Your task to perform on an android device: Open calendar and show me the second week of next month Image 0: 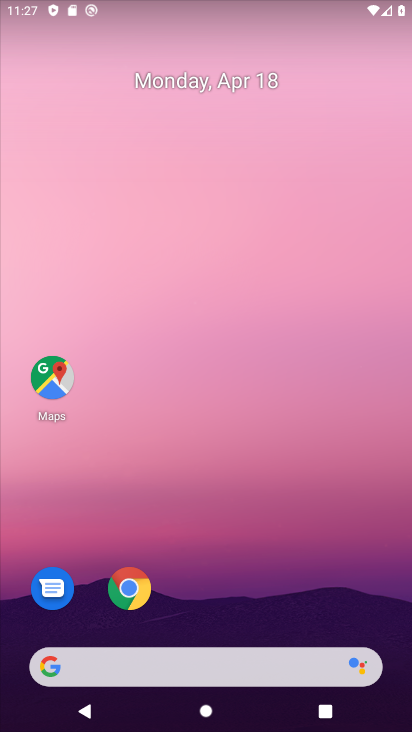
Step 0: drag from (294, 517) to (278, 21)
Your task to perform on an android device: Open calendar and show me the second week of next month Image 1: 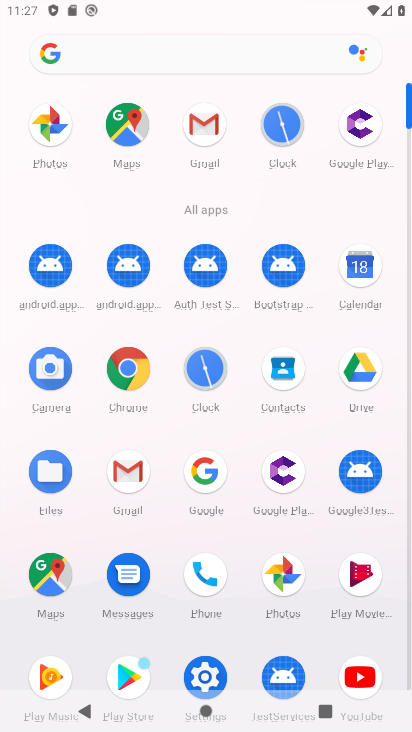
Step 1: drag from (3, 516) to (0, 201)
Your task to perform on an android device: Open calendar and show me the second week of next month Image 2: 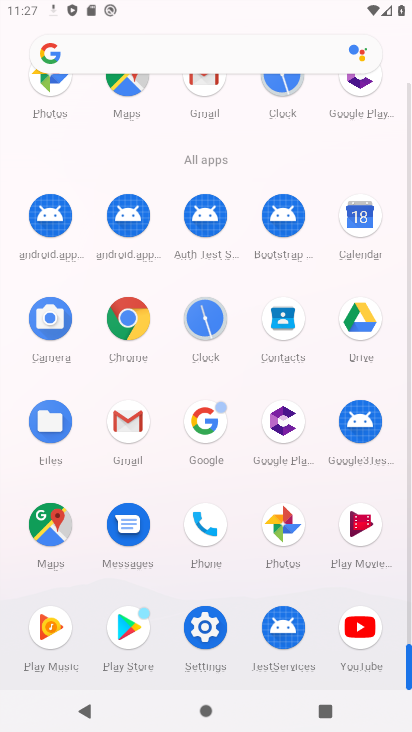
Step 2: drag from (18, 165) to (6, 369)
Your task to perform on an android device: Open calendar and show me the second week of next month Image 3: 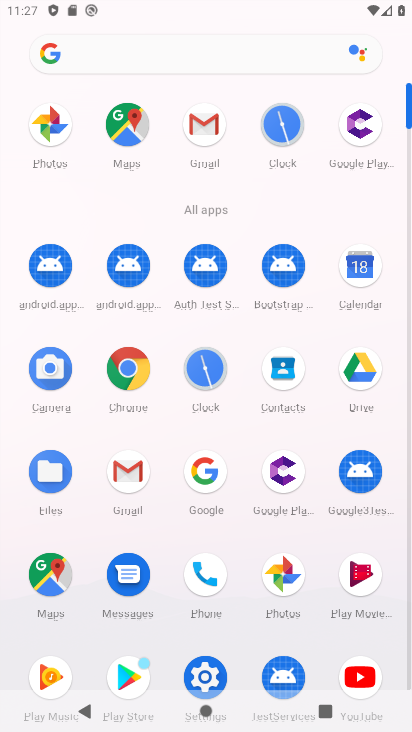
Step 3: click (354, 264)
Your task to perform on an android device: Open calendar and show me the second week of next month Image 4: 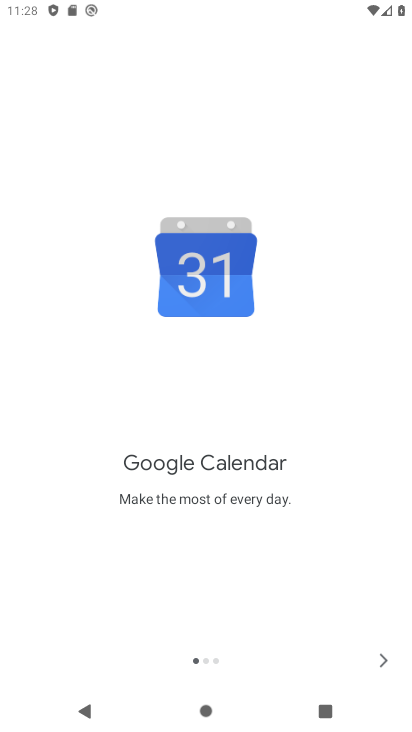
Step 4: click (379, 662)
Your task to perform on an android device: Open calendar and show me the second week of next month Image 5: 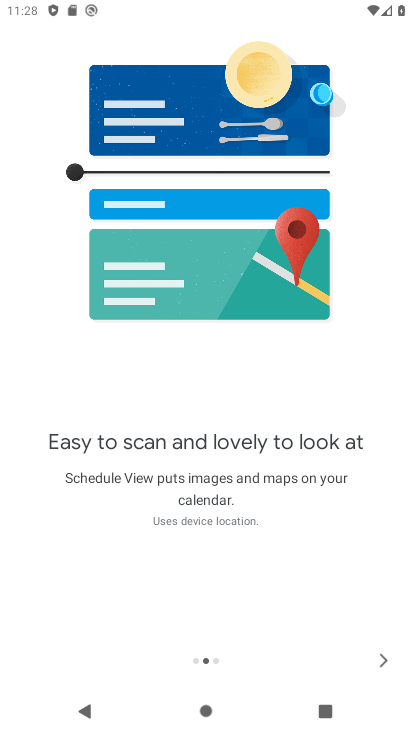
Step 5: click (379, 662)
Your task to perform on an android device: Open calendar and show me the second week of next month Image 6: 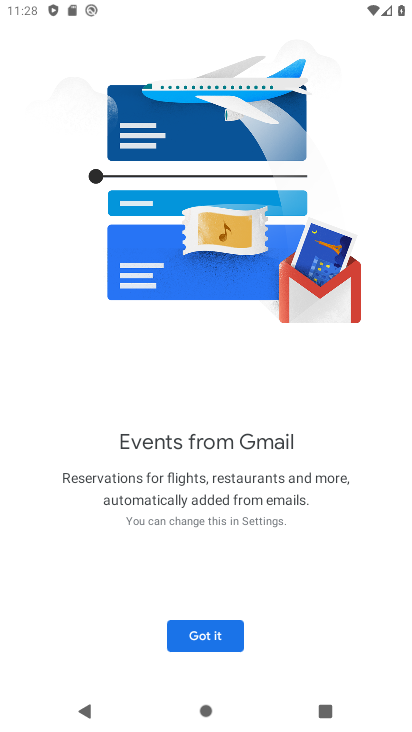
Step 6: click (218, 630)
Your task to perform on an android device: Open calendar and show me the second week of next month Image 7: 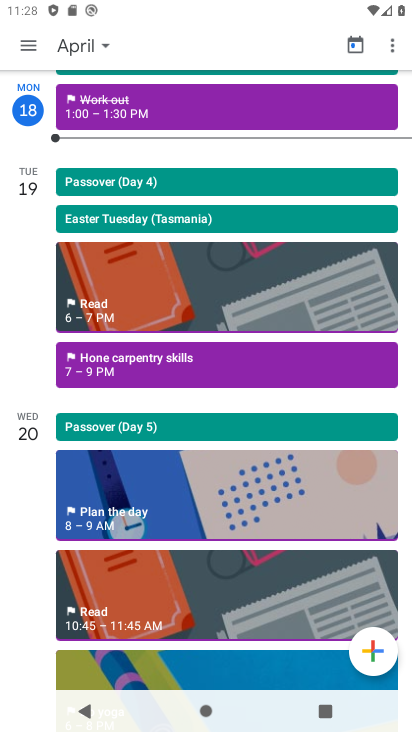
Step 7: click (77, 57)
Your task to perform on an android device: Open calendar and show me the second week of next month Image 8: 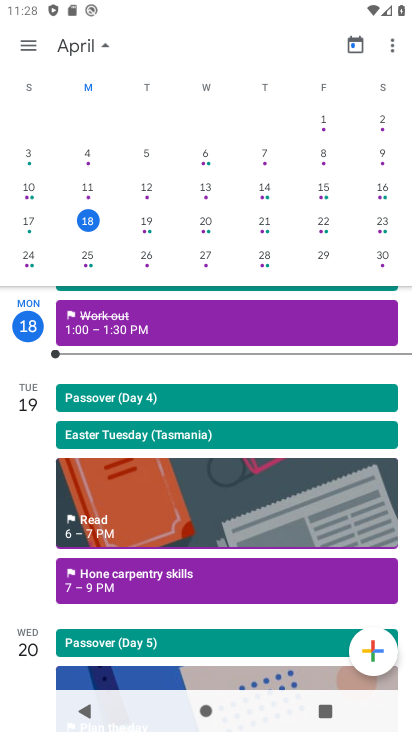
Step 8: drag from (359, 193) to (0, 143)
Your task to perform on an android device: Open calendar and show me the second week of next month Image 9: 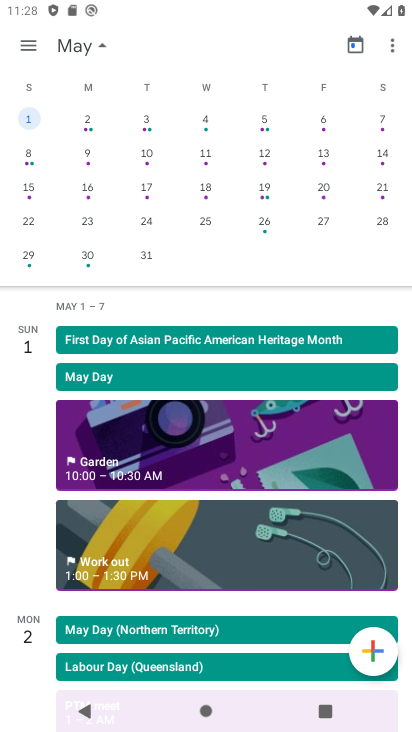
Step 9: click (86, 155)
Your task to perform on an android device: Open calendar and show me the second week of next month Image 10: 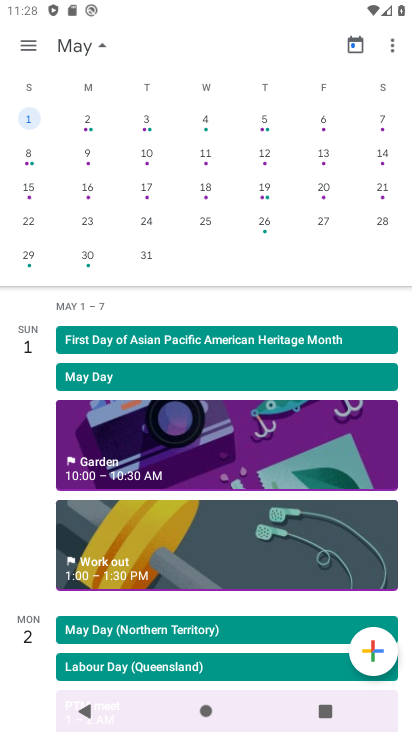
Step 10: click (86, 155)
Your task to perform on an android device: Open calendar and show me the second week of next month Image 11: 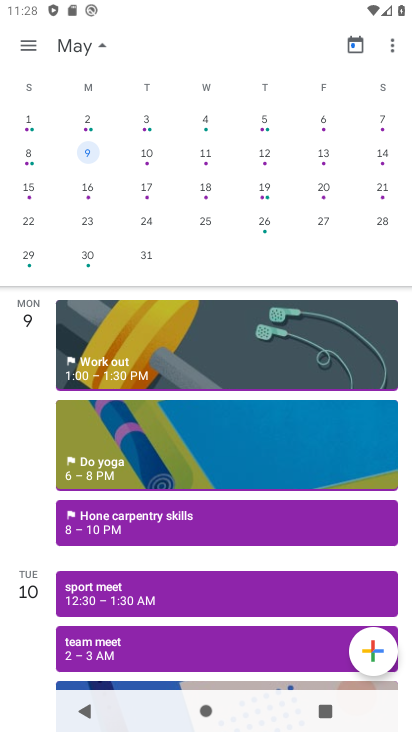
Step 11: click (25, 40)
Your task to perform on an android device: Open calendar and show me the second week of next month Image 12: 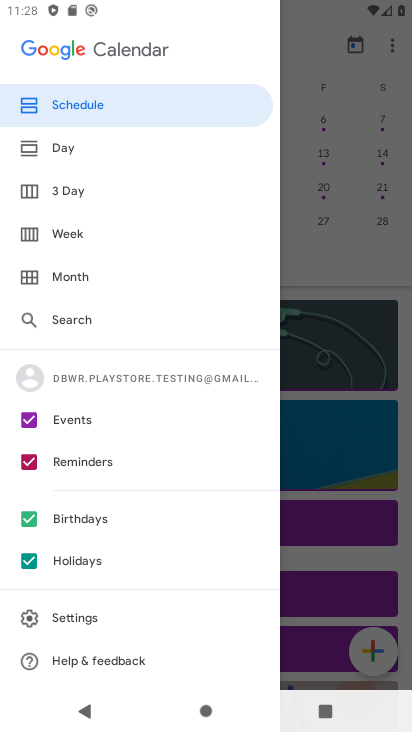
Step 12: click (80, 236)
Your task to perform on an android device: Open calendar and show me the second week of next month Image 13: 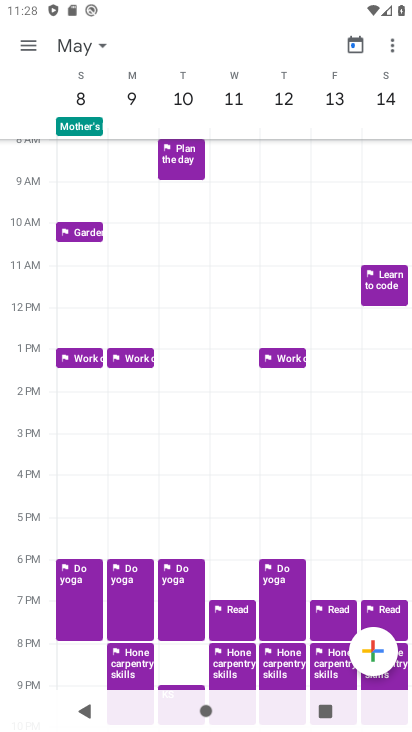
Step 13: task complete